Your task to perform on an android device: Open Yahoo.com Image 0: 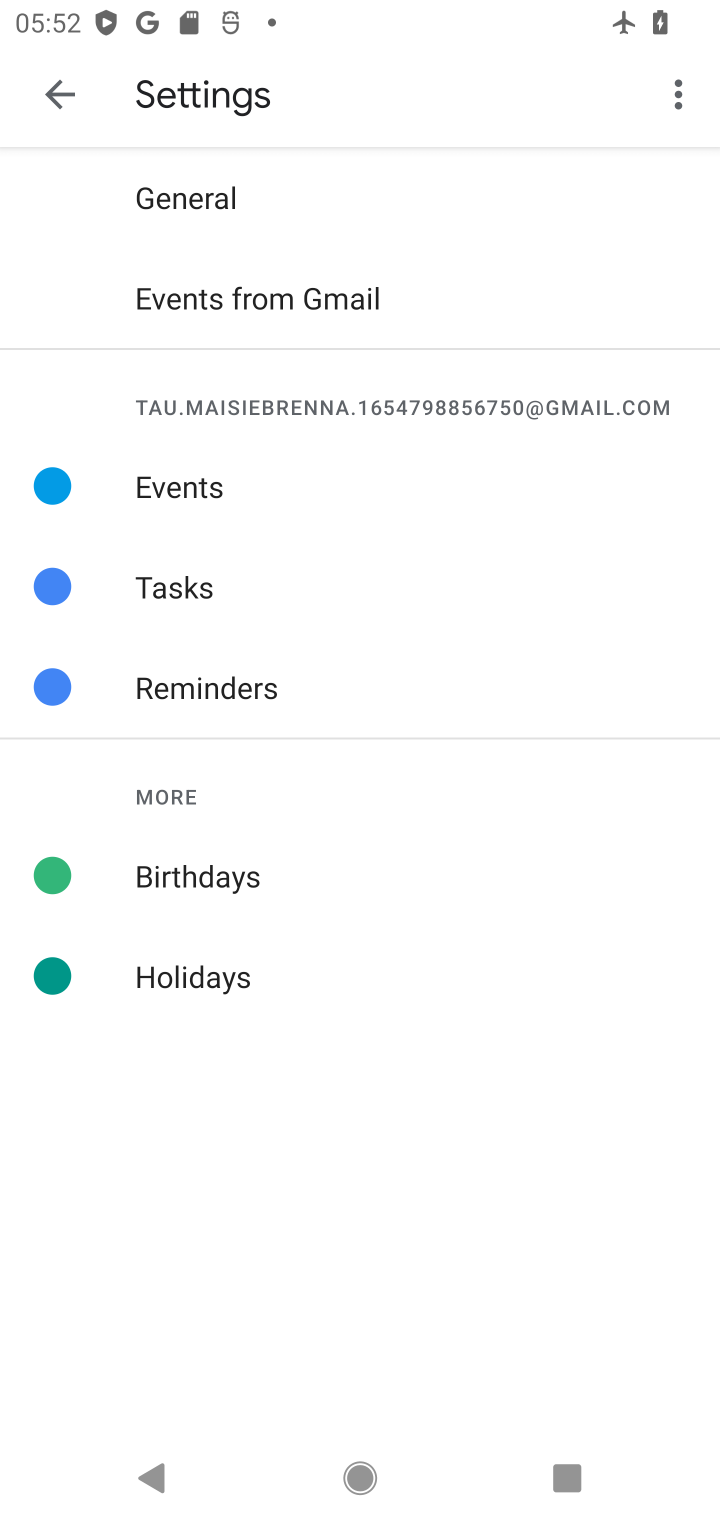
Step 0: press home button
Your task to perform on an android device: Open Yahoo.com Image 1: 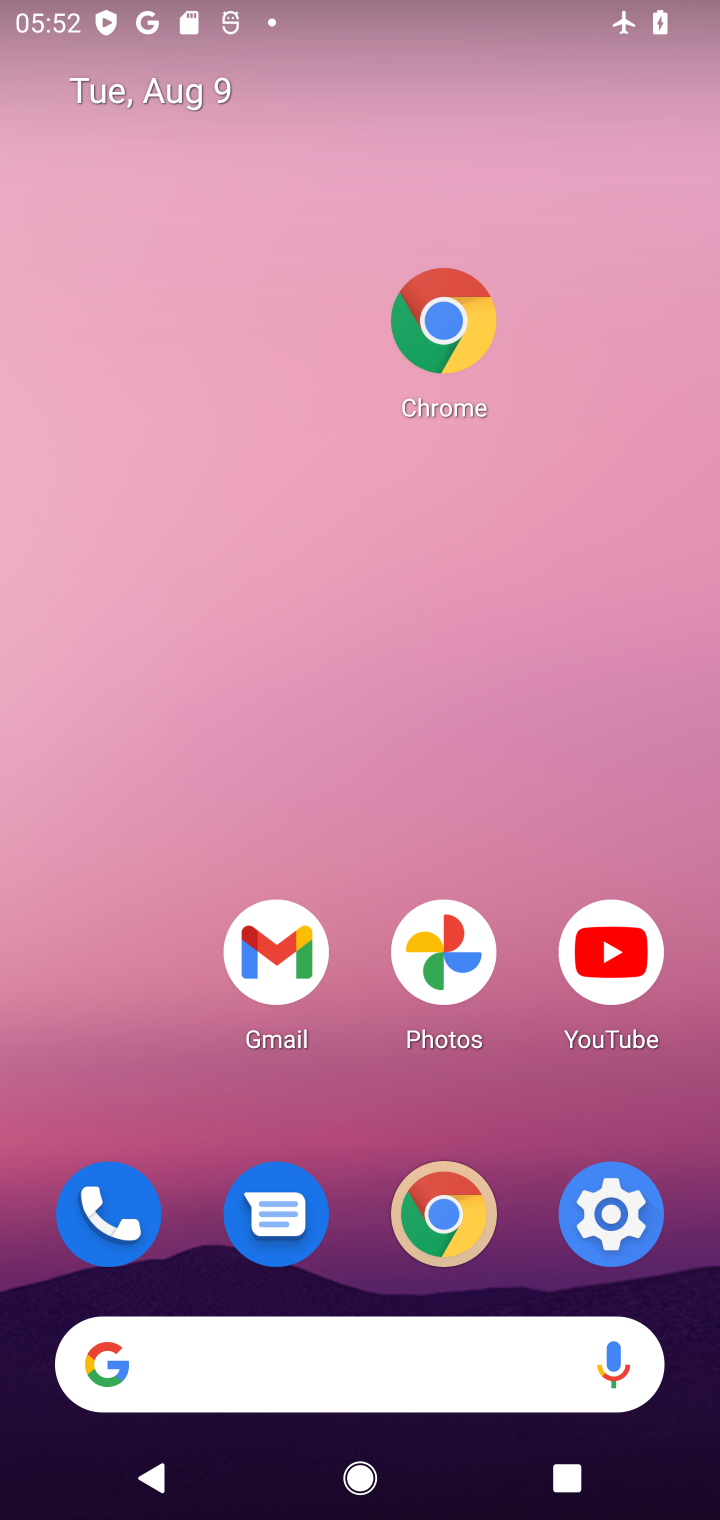
Step 1: drag from (494, 1357) to (540, 514)
Your task to perform on an android device: Open Yahoo.com Image 2: 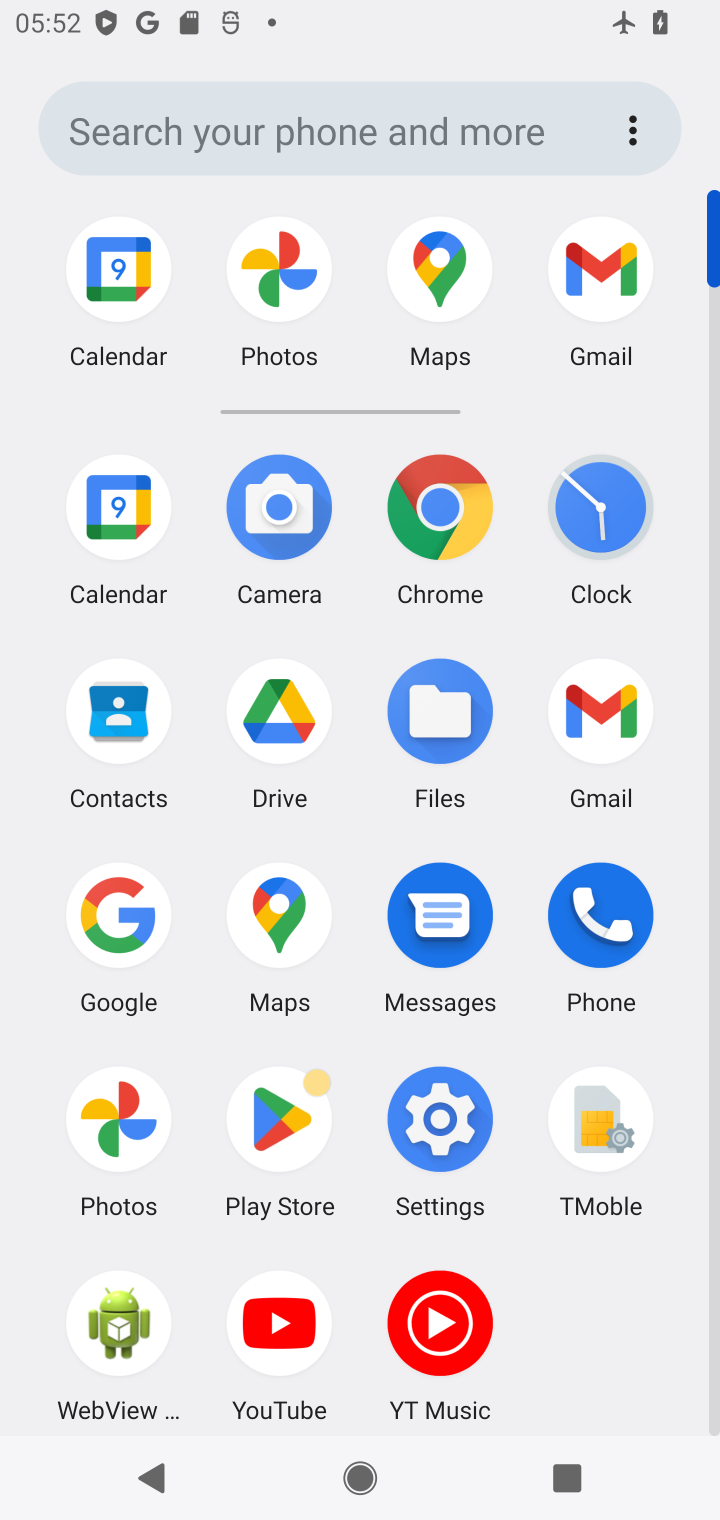
Step 2: click (439, 531)
Your task to perform on an android device: Open Yahoo.com Image 3: 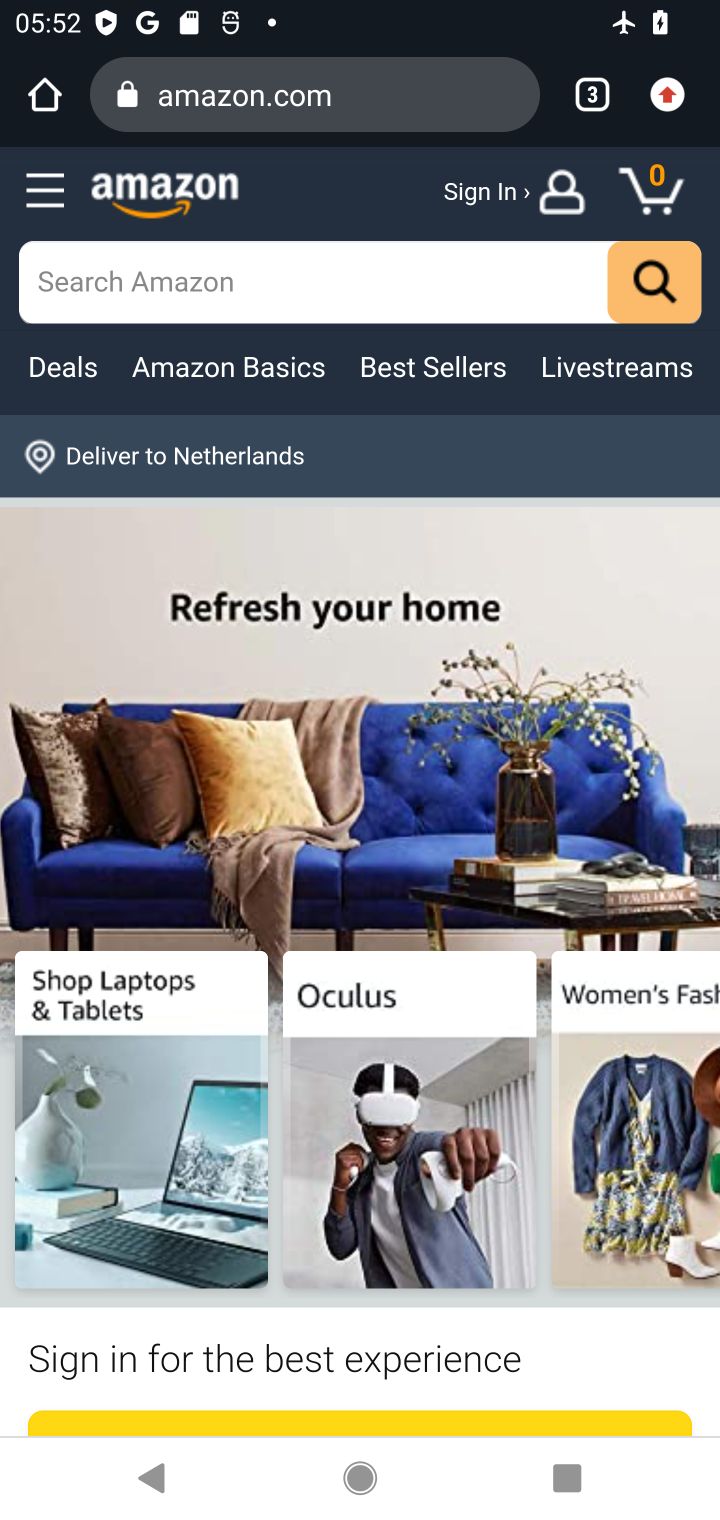
Step 3: click (586, 101)
Your task to perform on an android device: Open Yahoo.com Image 4: 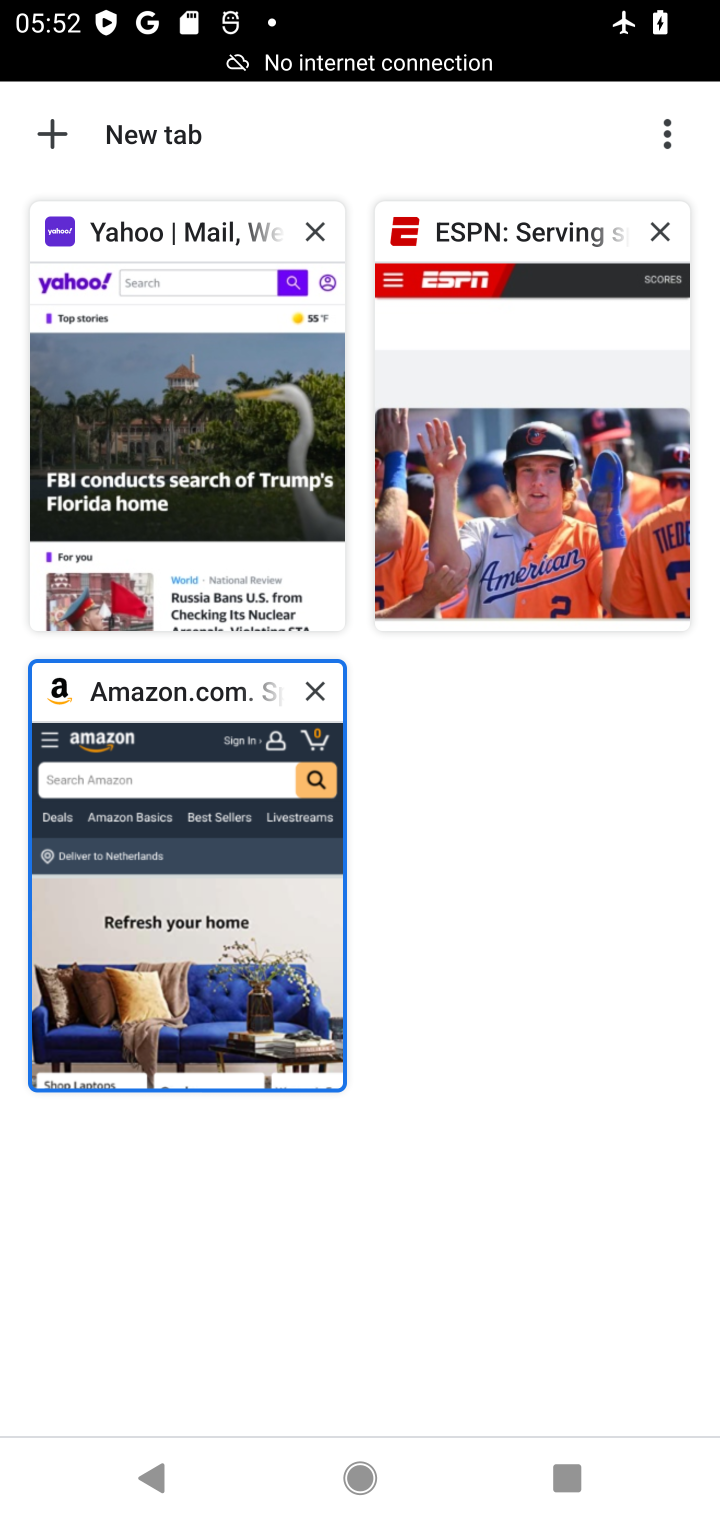
Step 4: click (74, 128)
Your task to perform on an android device: Open Yahoo.com Image 5: 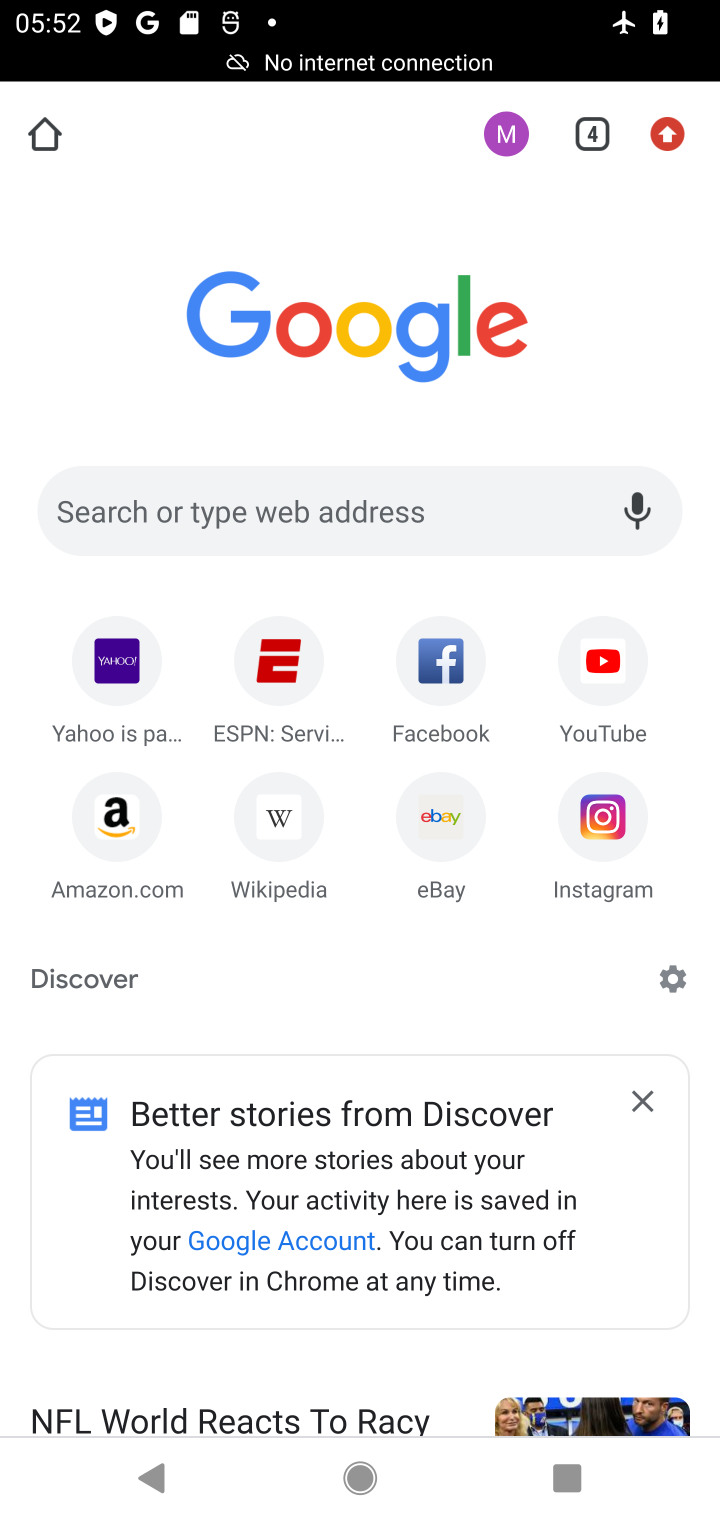
Step 5: click (79, 670)
Your task to perform on an android device: Open Yahoo.com Image 6: 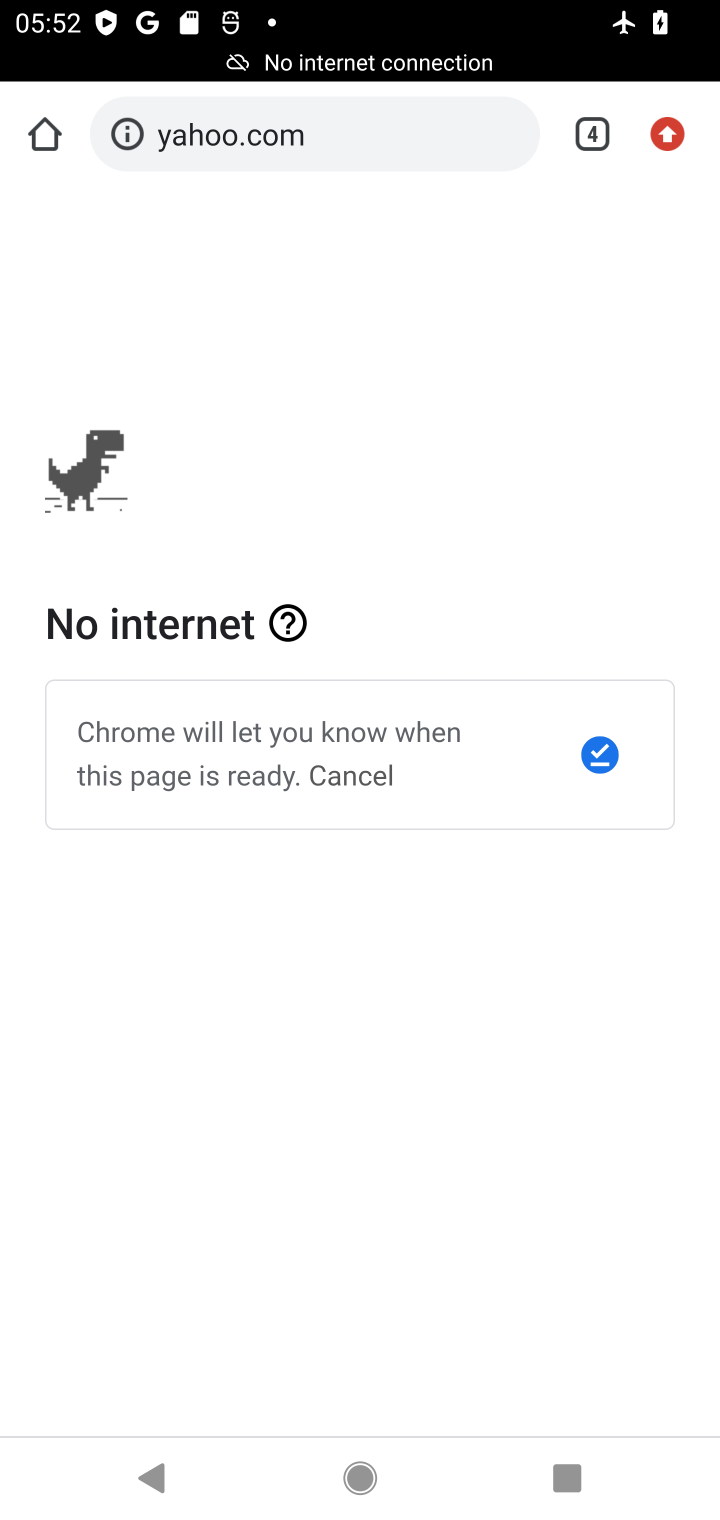
Step 6: press home button
Your task to perform on an android device: Open Yahoo.com Image 7: 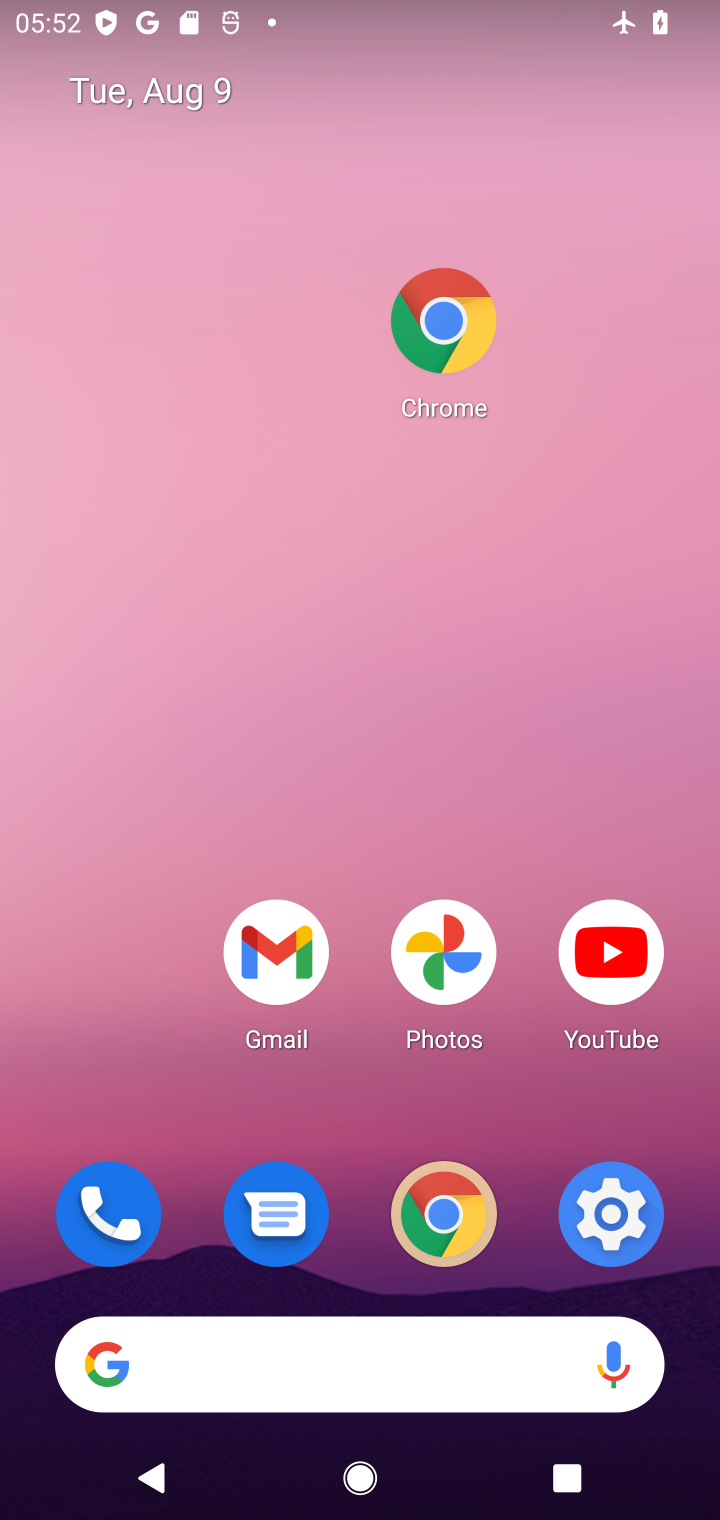
Step 7: click (610, 1223)
Your task to perform on an android device: Open Yahoo.com Image 8: 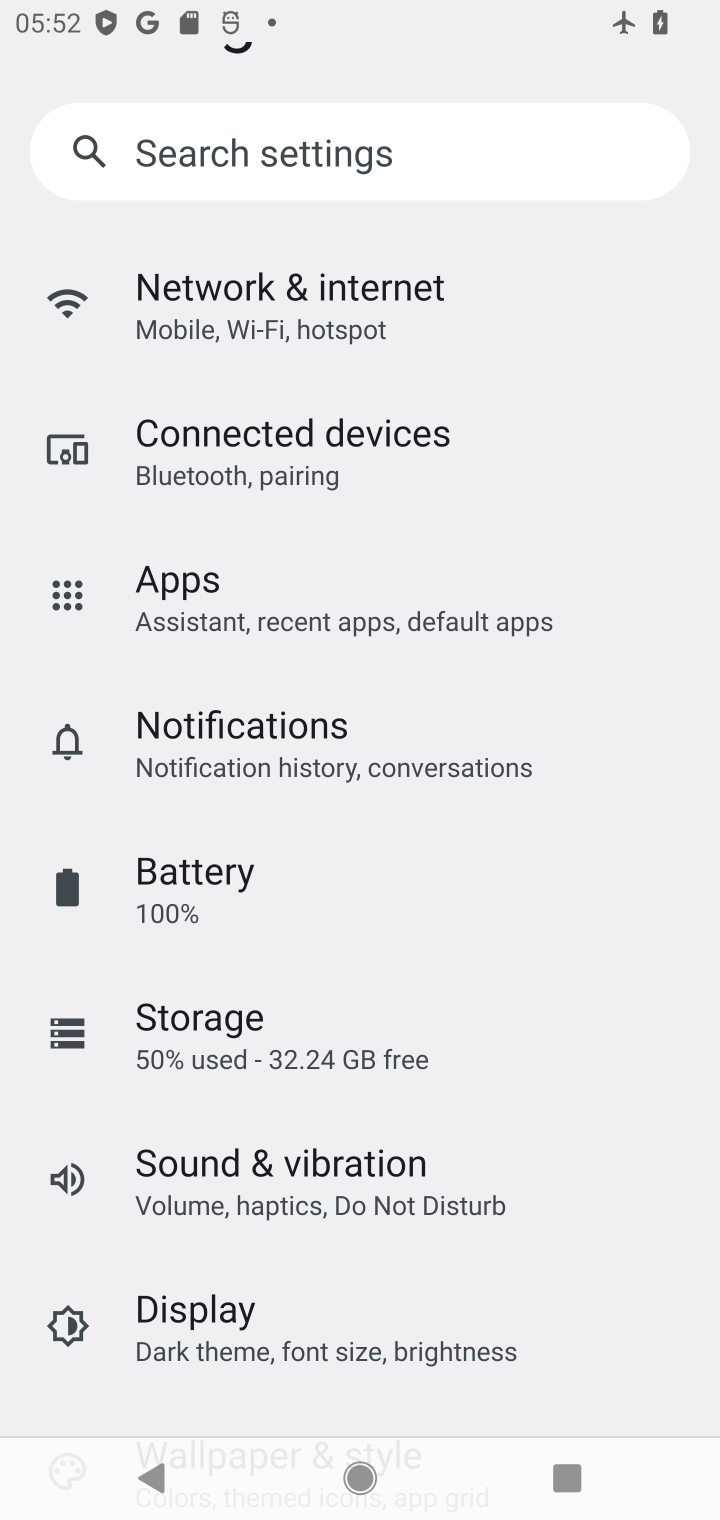
Step 8: click (367, 356)
Your task to perform on an android device: Open Yahoo.com Image 9: 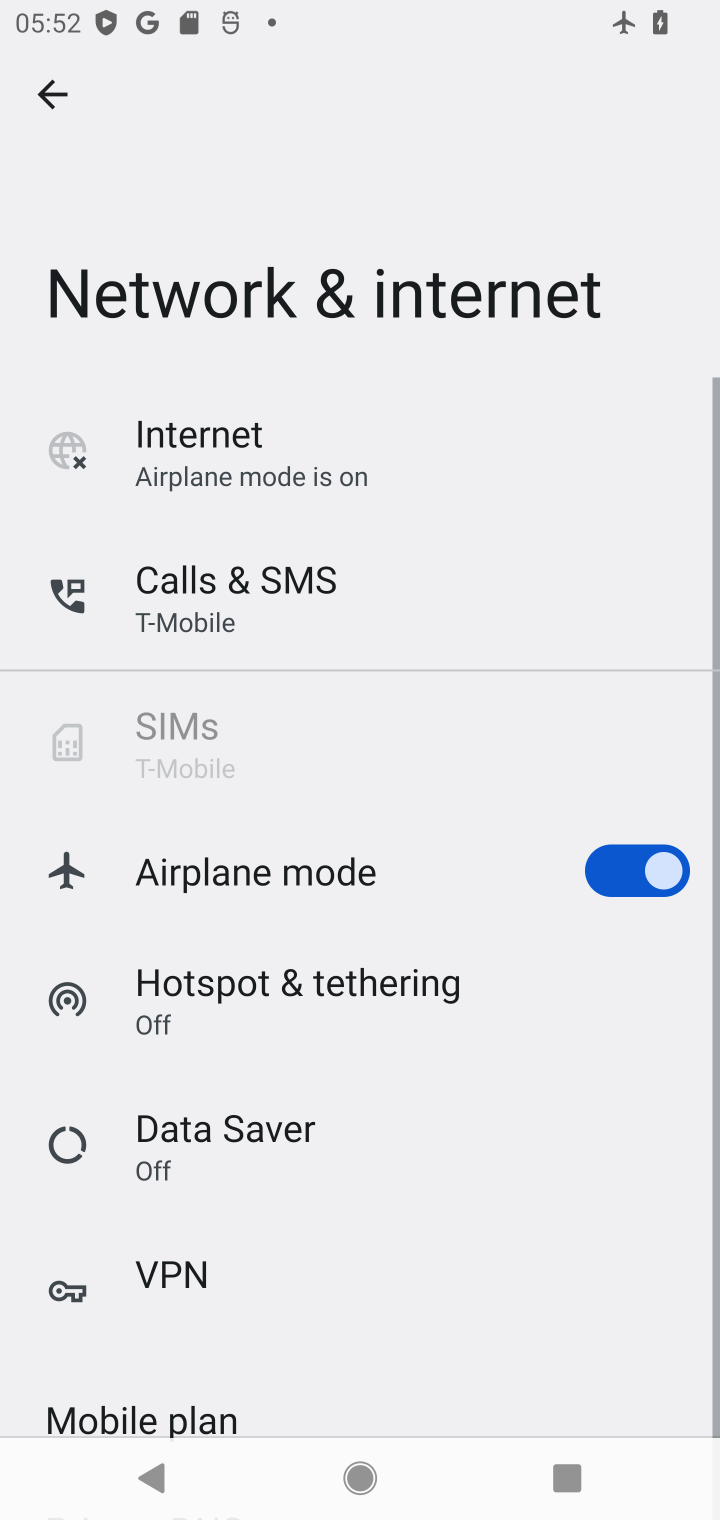
Step 9: click (609, 858)
Your task to perform on an android device: Open Yahoo.com Image 10: 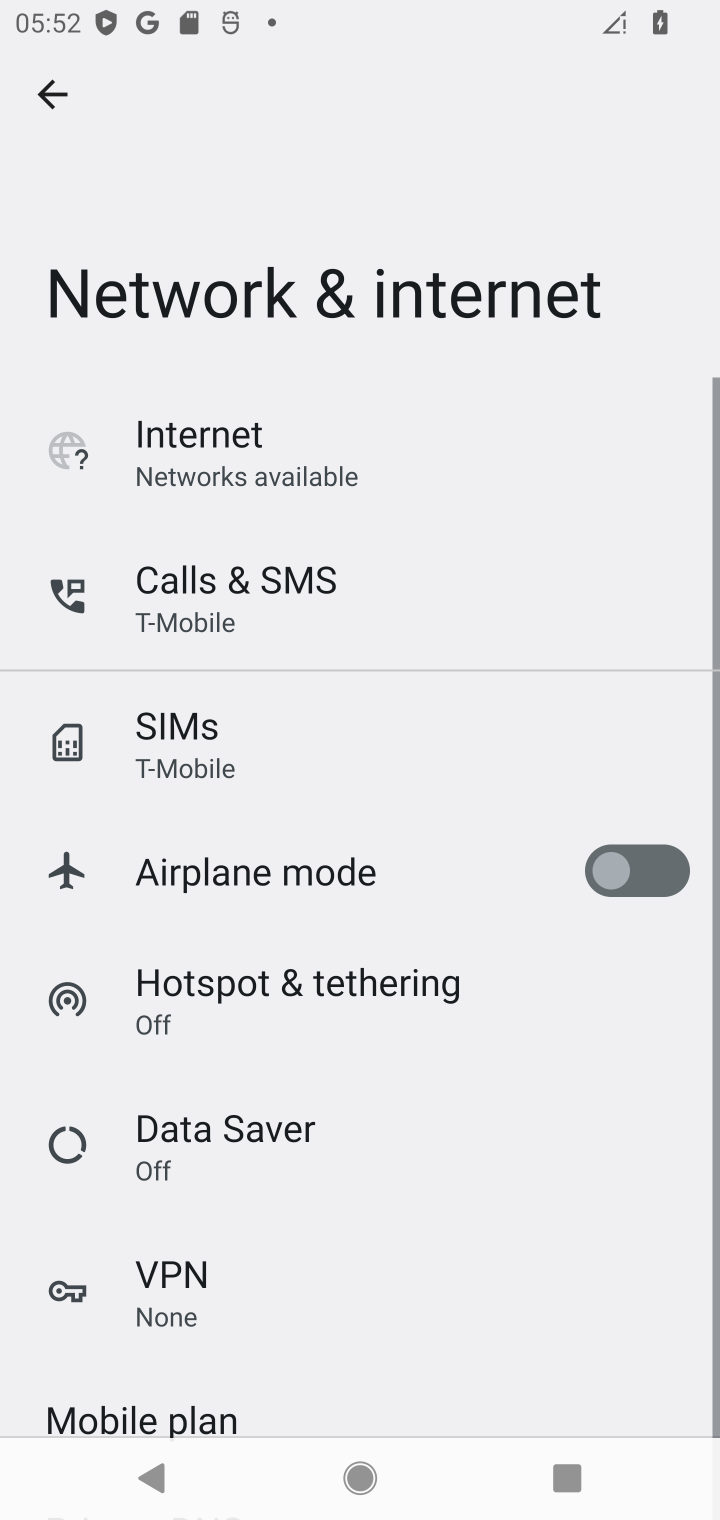
Step 10: press home button
Your task to perform on an android device: Open Yahoo.com Image 11: 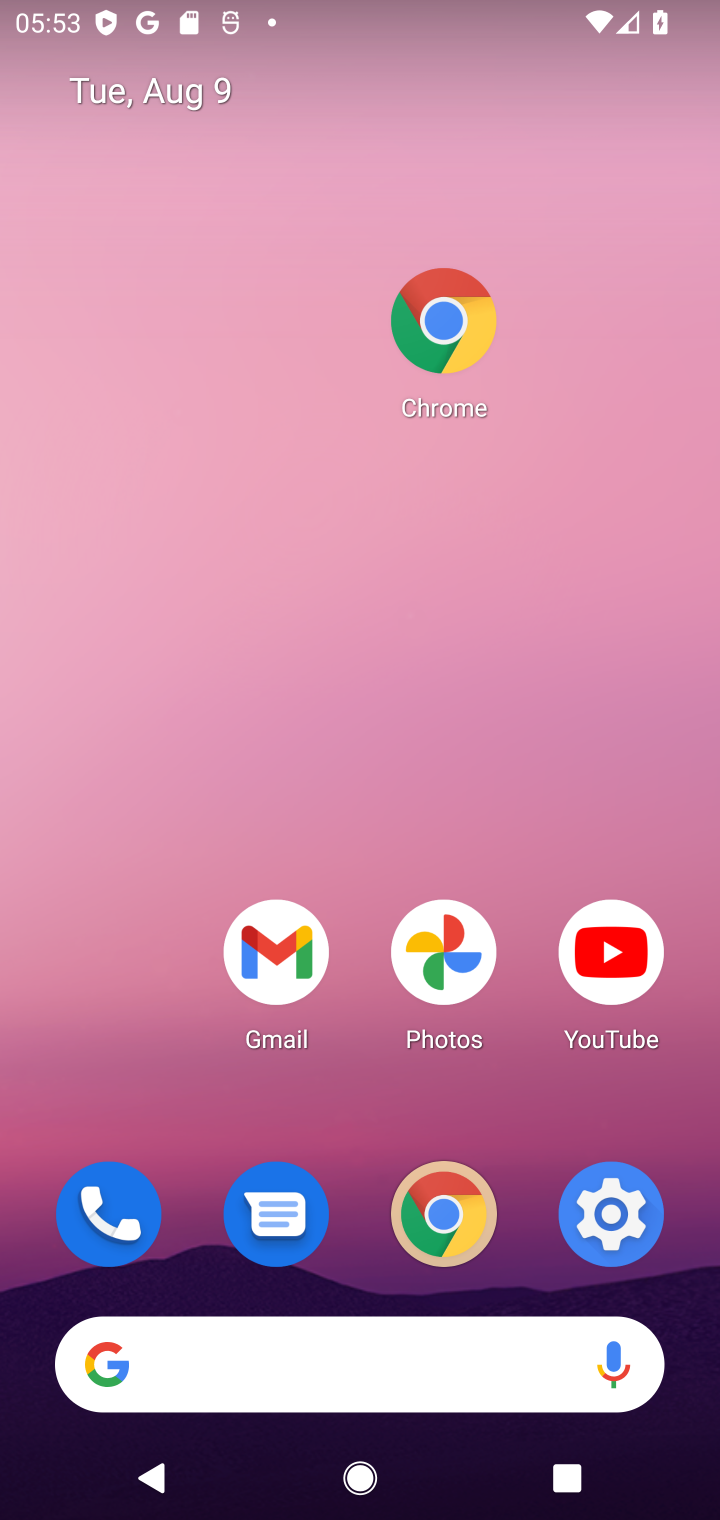
Step 11: click (467, 1202)
Your task to perform on an android device: Open Yahoo.com Image 12: 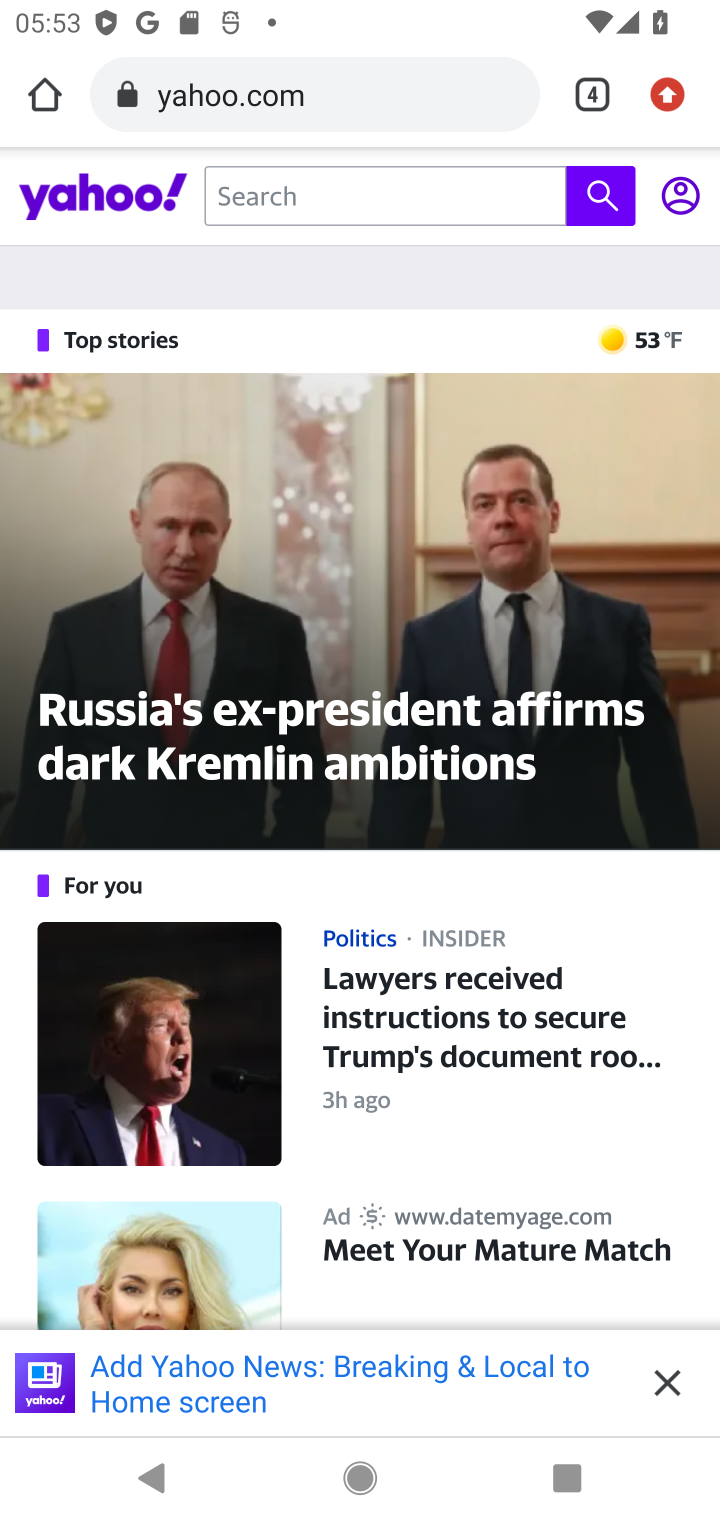
Step 12: task complete